Your task to perform on an android device: Open display settings Image 0: 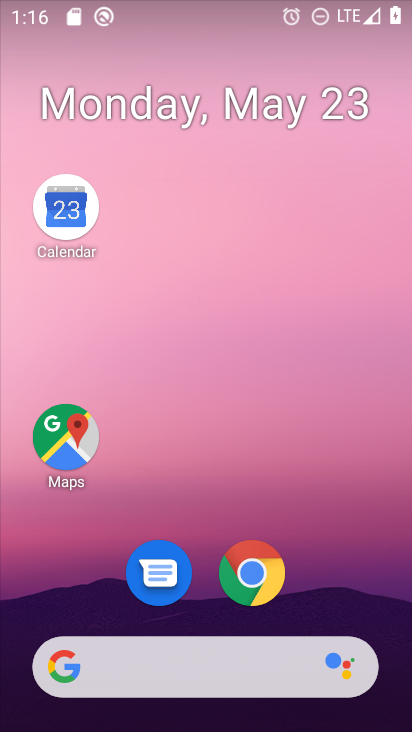
Step 0: drag from (329, 597) to (332, 47)
Your task to perform on an android device: Open display settings Image 1: 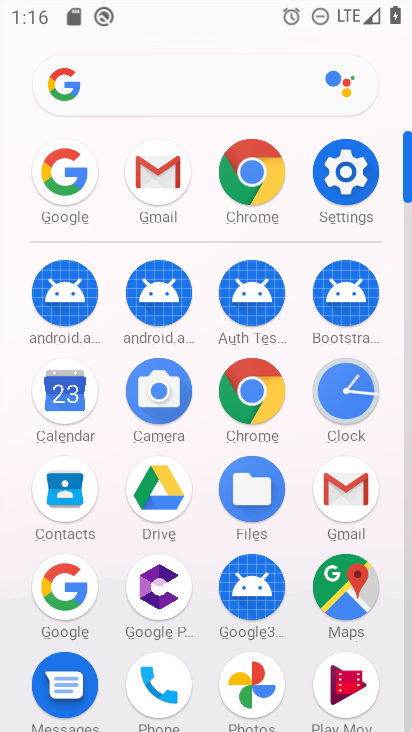
Step 1: click (343, 191)
Your task to perform on an android device: Open display settings Image 2: 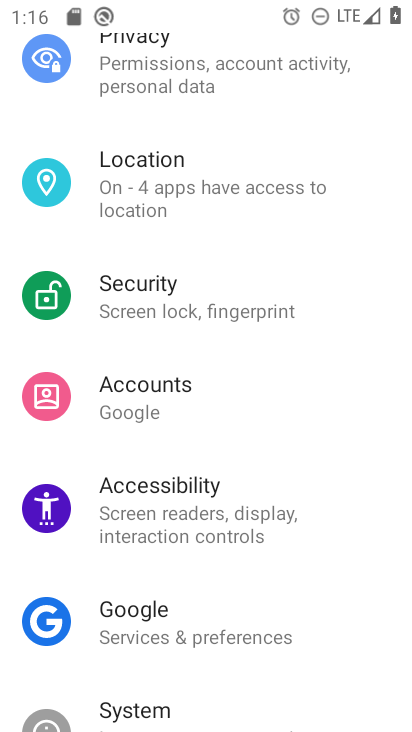
Step 2: drag from (191, 245) to (261, 607)
Your task to perform on an android device: Open display settings Image 3: 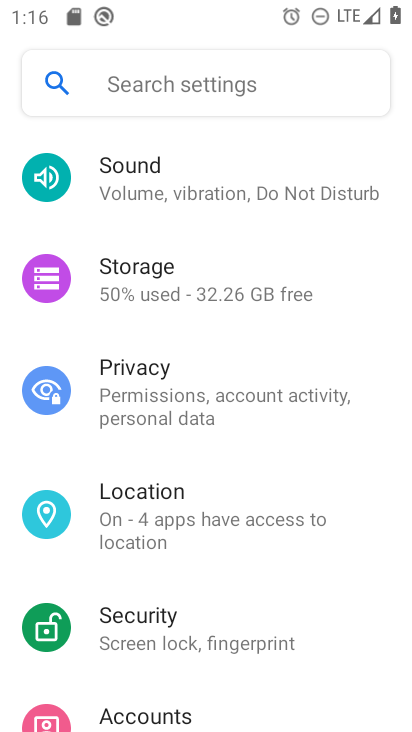
Step 3: drag from (214, 163) to (178, 442)
Your task to perform on an android device: Open display settings Image 4: 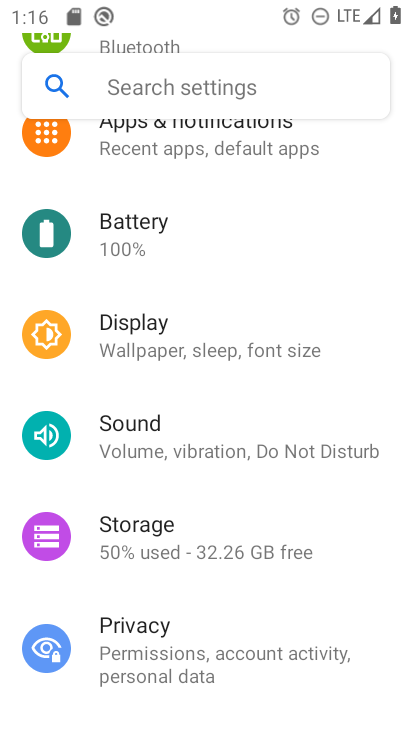
Step 4: click (229, 333)
Your task to perform on an android device: Open display settings Image 5: 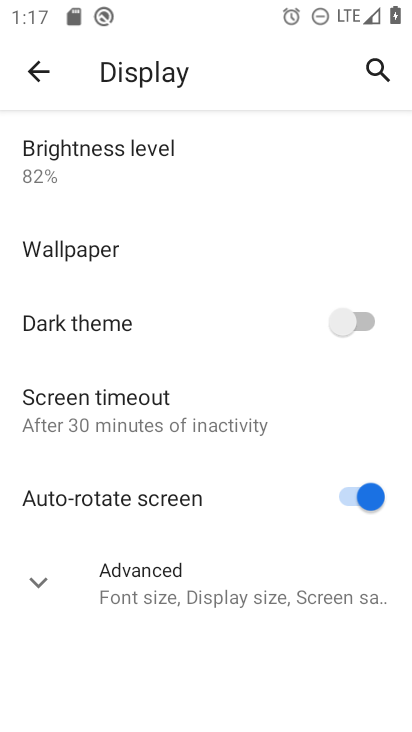
Step 5: task complete